Your task to perform on an android device: toggle wifi Image 0: 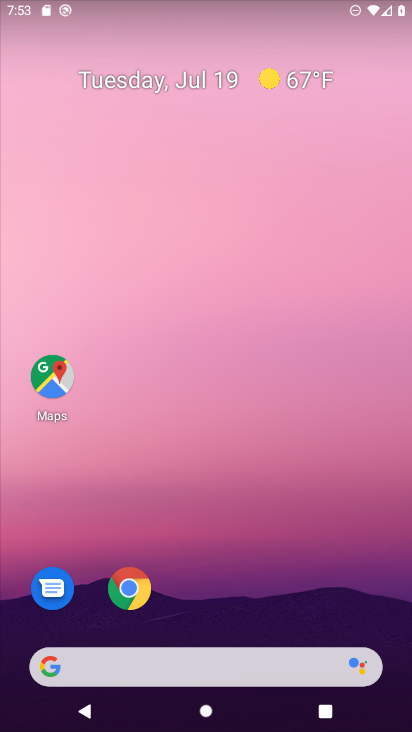
Step 0: drag from (315, 587) to (332, 137)
Your task to perform on an android device: toggle wifi Image 1: 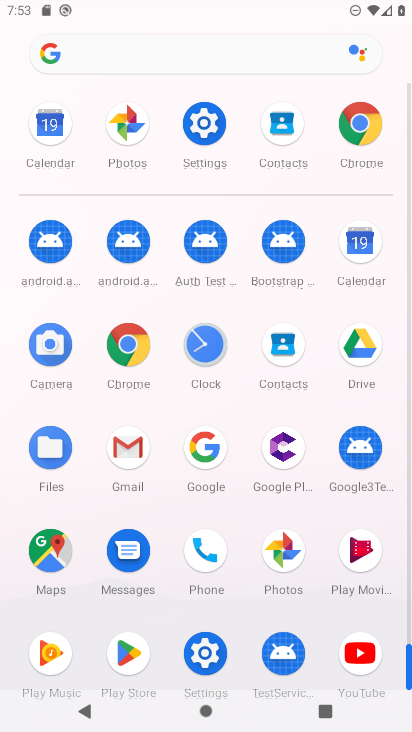
Step 1: click (199, 119)
Your task to perform on an android device: toggle wifi Image 2: 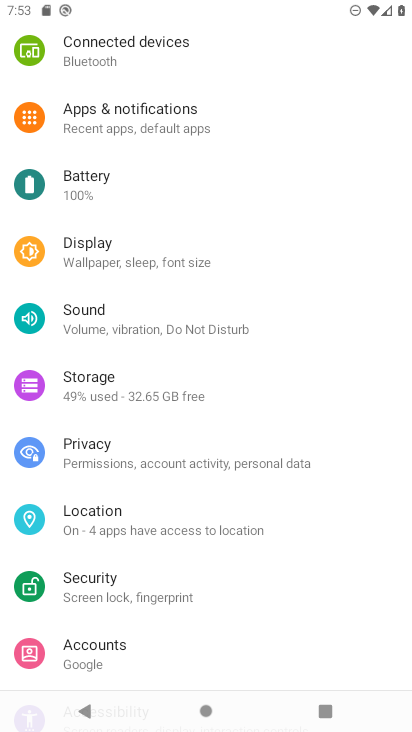
Step 2: drag from (307, 198) to (315, 297)
Your task to perform on an android device: toggle wifi Image 3: 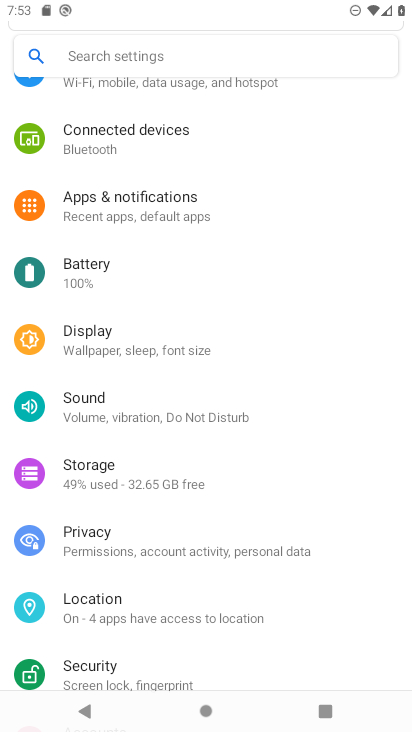
Step 3: drag from (332, 195) to (332, 303)
Your task to perform on an android device: toggle wifi Image 4: 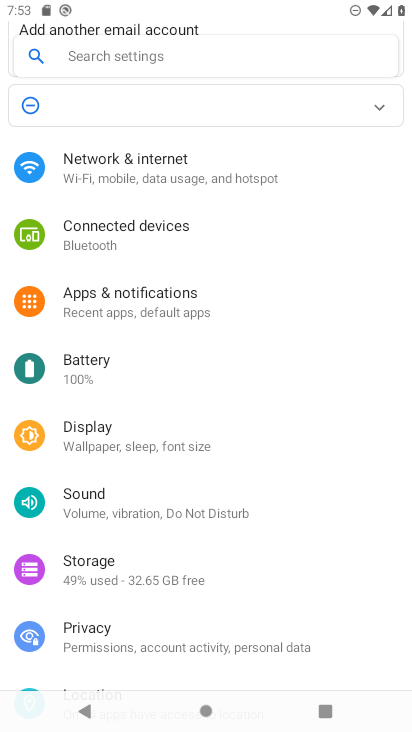
Step 4: drag from (330, 189) to (331, 388)
Your task to perform on an android device: toggle wifi Image 5: 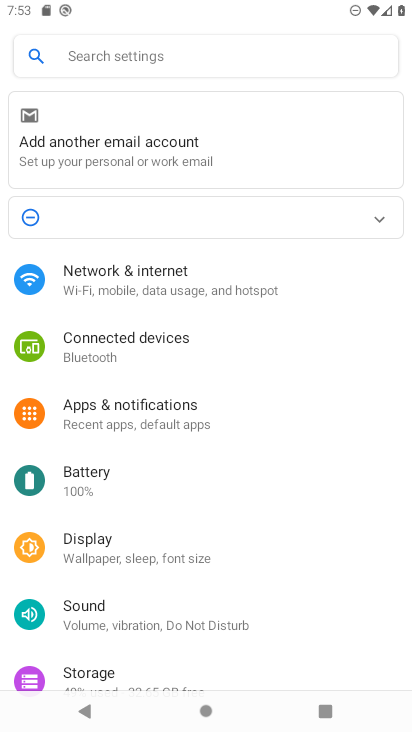
Step 5: click (213, 279)
Your task to perform on an android device: toggle wifi Image 6: 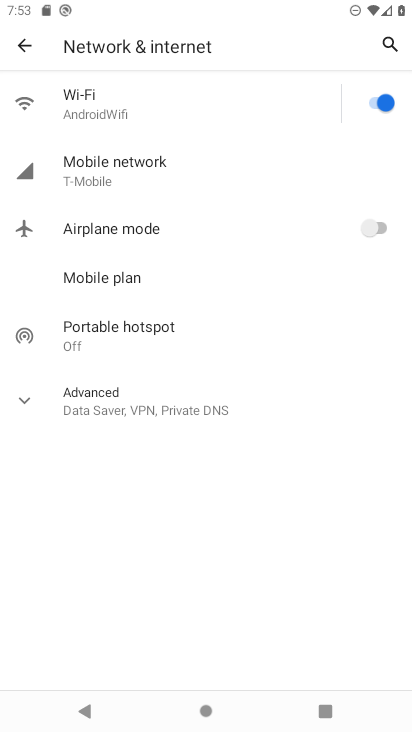
Step 6: click (385, 108)
Your task to perform on an android device: toggle wifi Image 7: 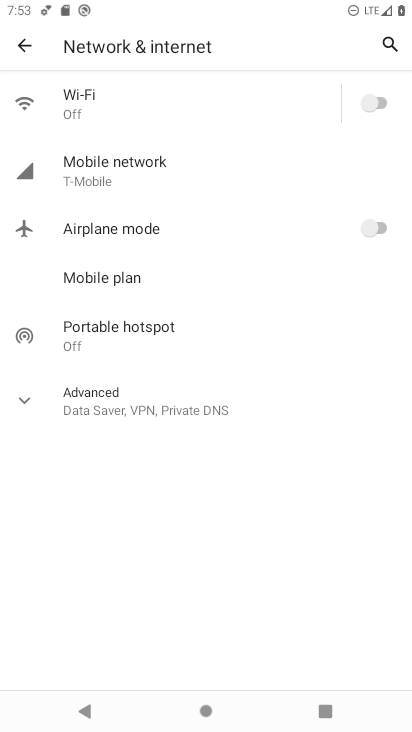
Step 7: task complete